Your task to perform on an android device: change notifications settings Image 0: 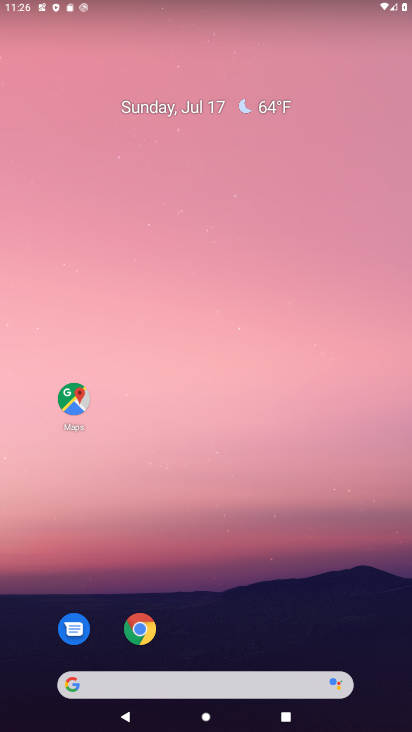
Step 0: drag from (148, 621) to (190, 160)
Your task to perform on an android device: change notifications settings Image 1: 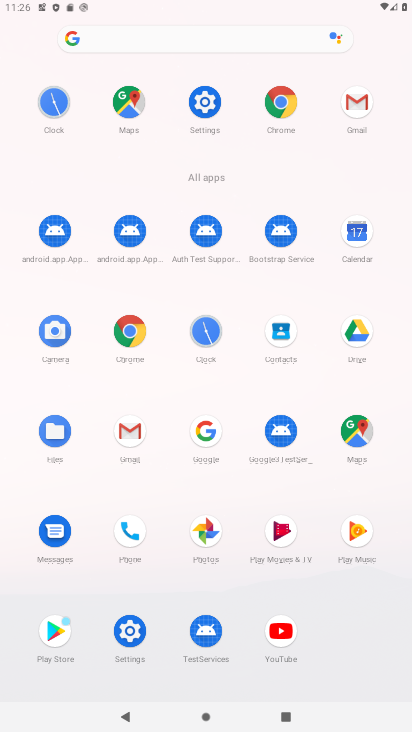
Step 1: click (207, 94)
Your task to perform on an android device: change notifications settings Image 2: 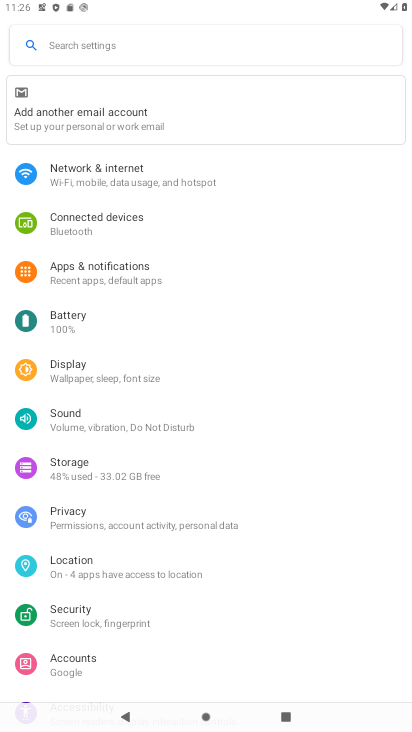
Step 2: click (144, 274)
Your task to perform on an android device: change notifications settings Image 3: 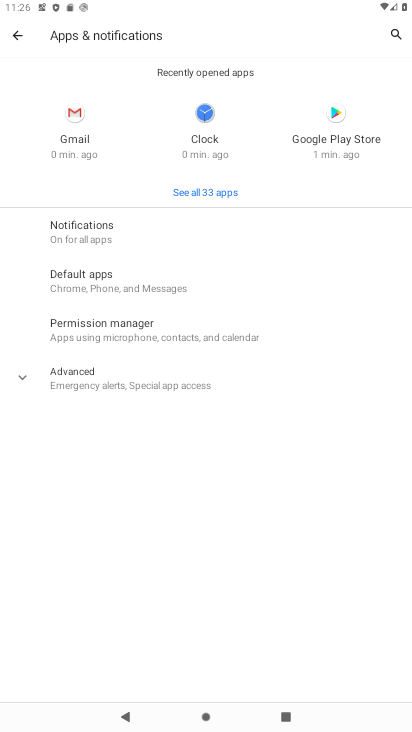
Step 3: click (131, 243)
Your task to perform on an android device: change notifications settings Image 4: 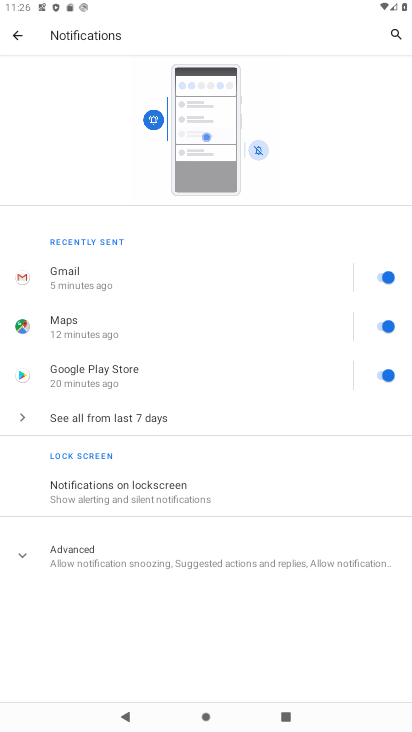
Step 4: click (154, 502)
Your task to perform on an android device: change notifications settings Image 5: 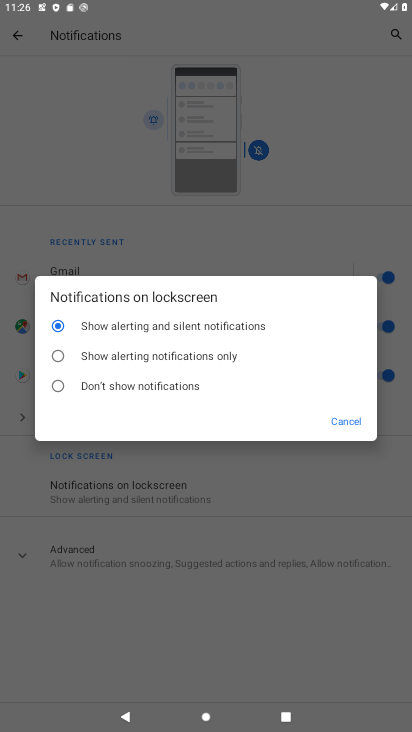
Step 5: click (107, 222)
Your task to perform on an android device: change notifications settings Image 6: 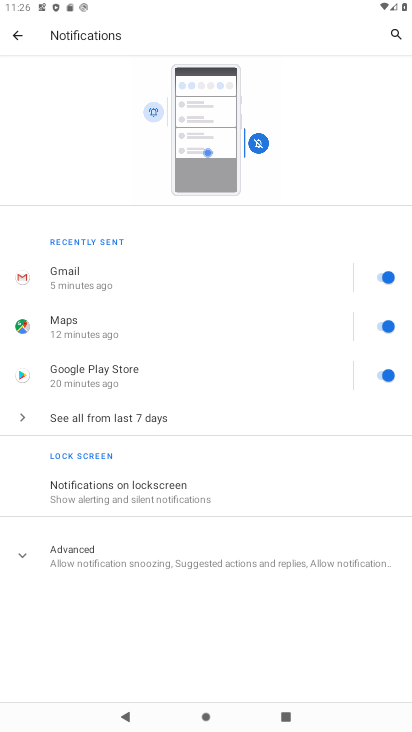
Step 6: click (25, 28)
Your task to perform on an android device: change notifications settings Image 7: 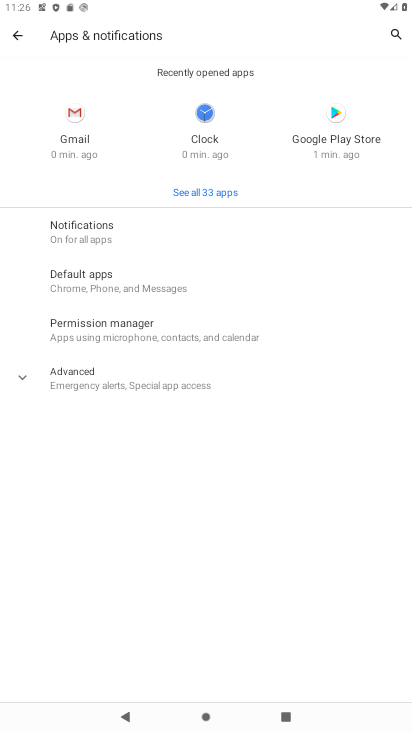
Step 7: click (78, 418)
Your task to perform on an android device: change notifications settings Image 8: 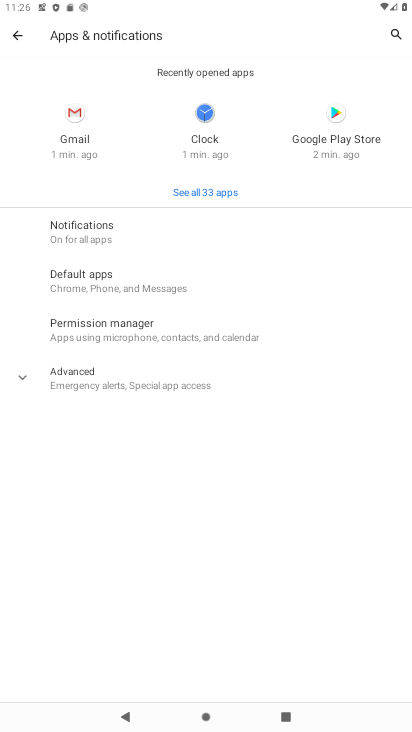
Step 8: click (82, 261)
Your task to perform on an android device: change notifications settings Image 9: 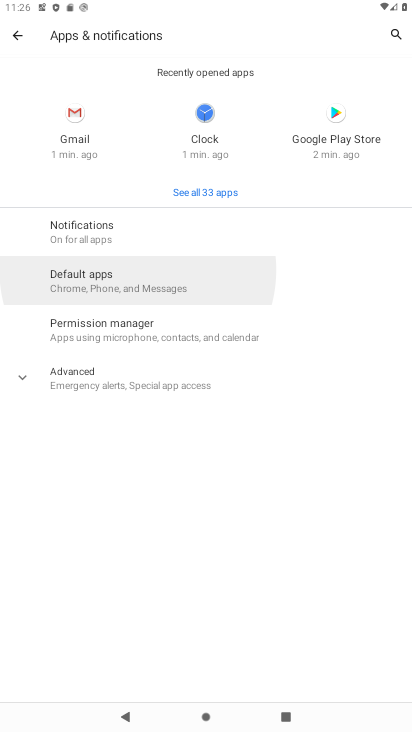
Step 9: click (82, 252)
Your task to perform on an android device: change notifications settings Image 10: 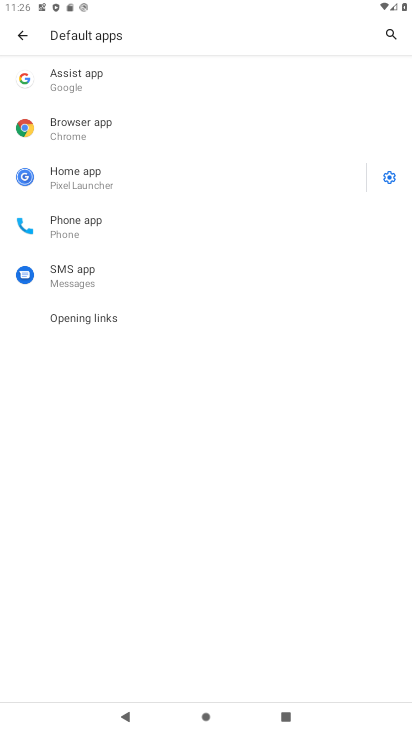
Step 10: click (23, 38)
Your task to perform on an android device: change notifications settings Image 11: 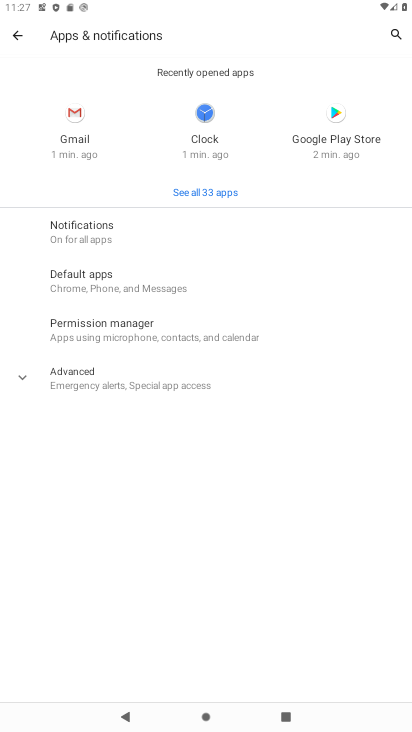
Step 11: click (101, 217)
Your task to perform on an android device: change notifications settings Image 12: 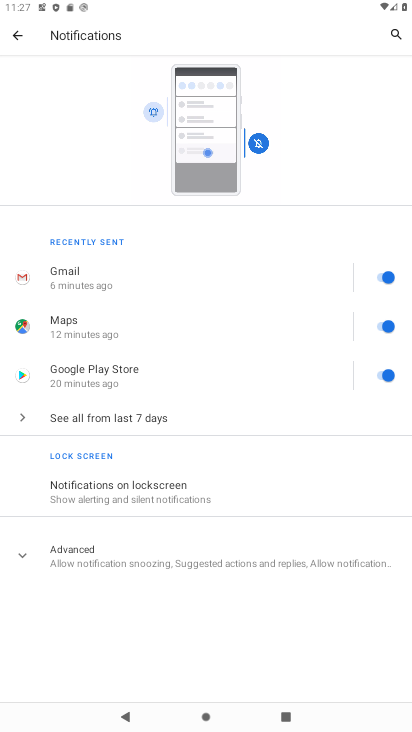
Step 12: click (144, 419)
Your task to perform on an android device: change notifications settings Image 13: 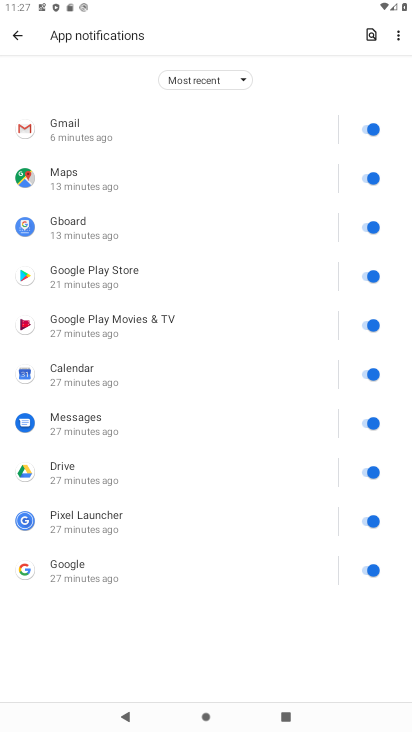
Step 13: click (376, 127)
Your task to perform on an android device: change notifications settings Image 14: 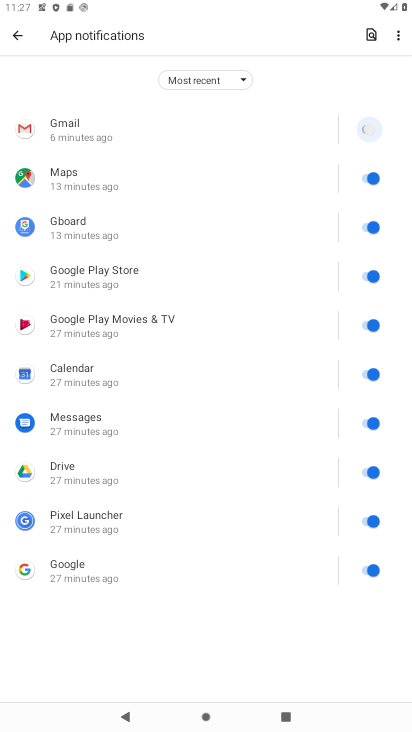
Step 14: click (376, 175)
Your task to perform on an android device: change notifications settings Image 15: 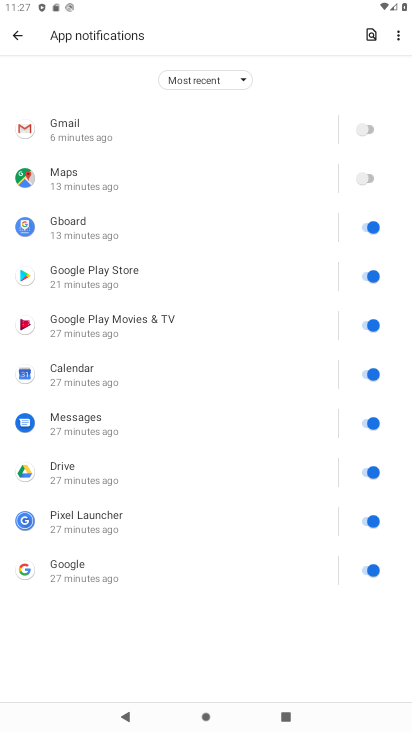
Step 15: click (371, 230)
Your task to perform on an android device: change notifications settings Image 16: 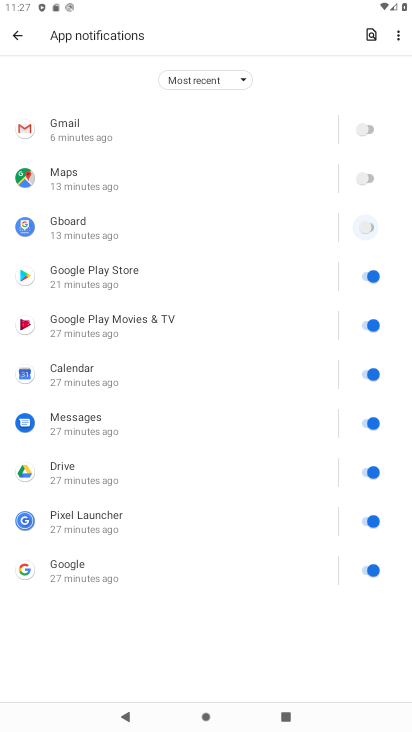
Step 16: click (369, 262)
Your task to perform on an android device: change notifications settings Image 17: 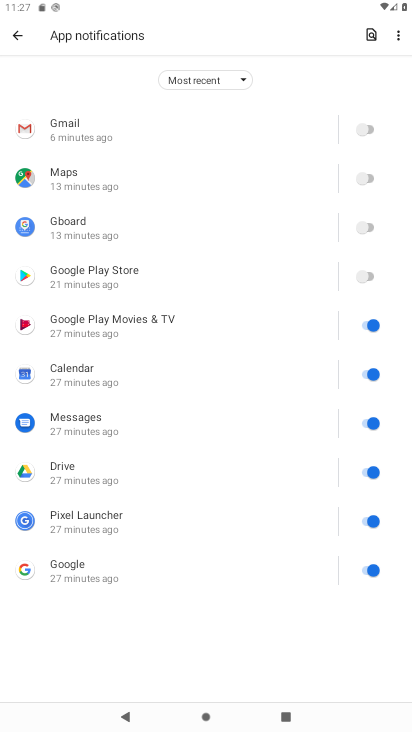
Step 17: click (371, 329)
Your task to perform on an android device: change notifications settings Image 18: 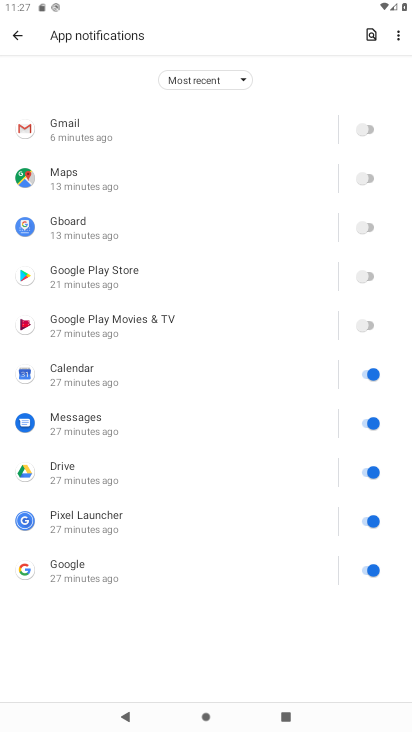
Step 18: click (371, 376)
Your task to perform on an android device: change notifications settings Image 19: 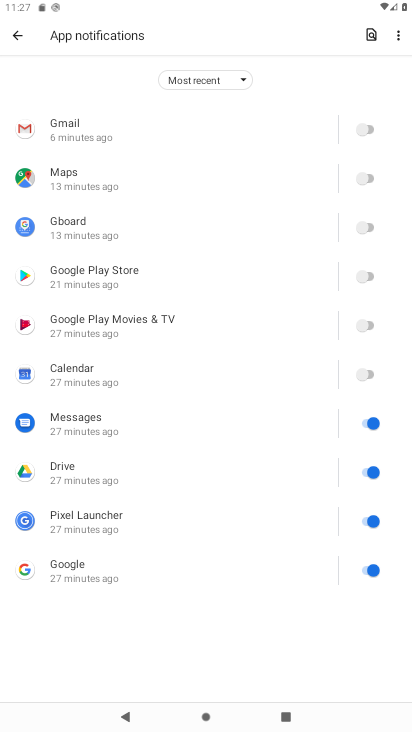
Step 19: click (374, 410)
Your task to perform on an android device: change notifications settings Image 20: 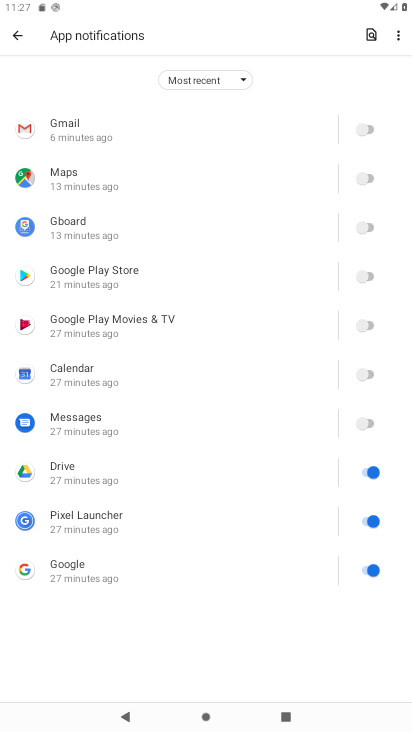
Step 20: click (372, 469)
Your task to perform on an android device: change notifications settings Image 21: 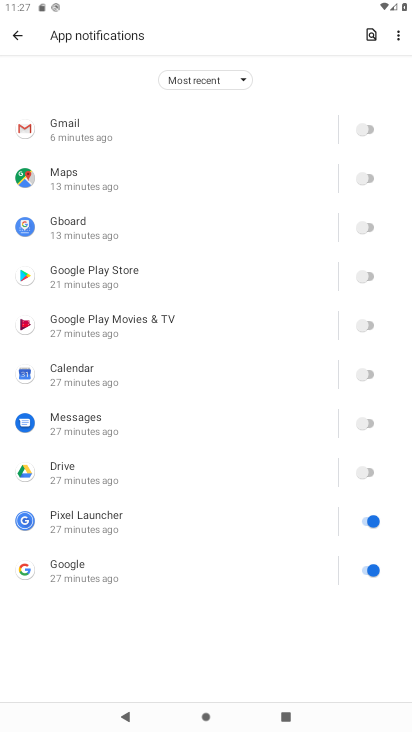
Step 21: click (370, 520)
Your task to perform on an android device: change notifications settings Image 22: 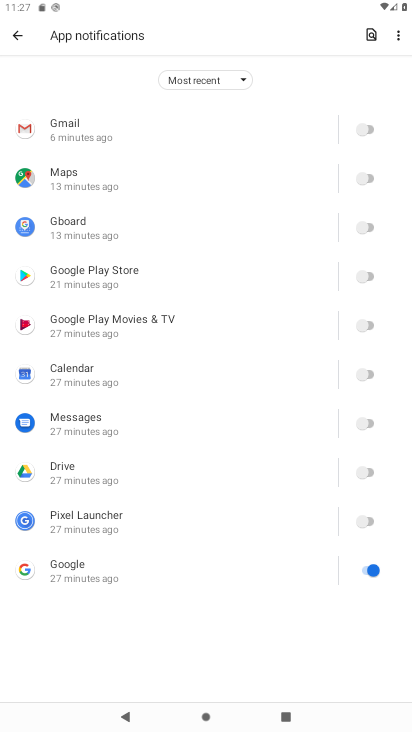
Step 22: click (368, 561)
Your task to perform on an android device: change notifications settings Image 23: 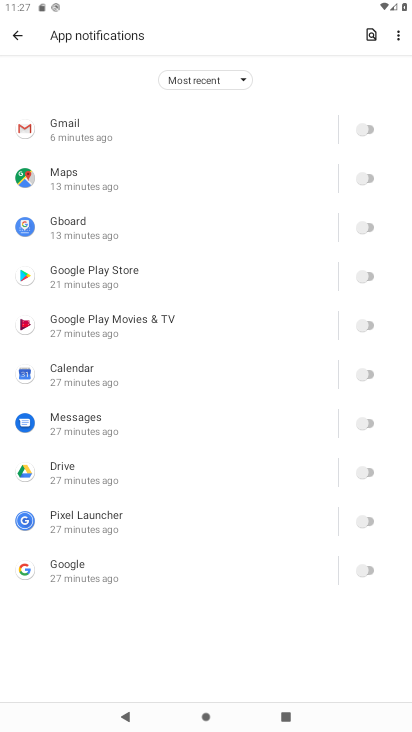
Step 23: task complete